Your task to perform on an android device: set default search engine in the chrome app Image 0: 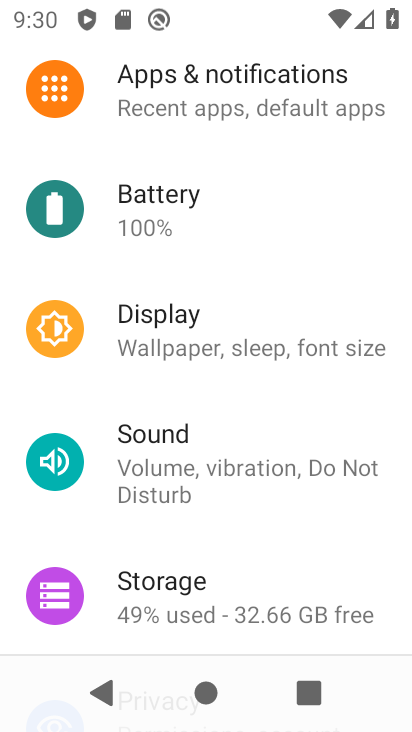
Step 0: press home button
Your task to perform on an android device: set default search engine in the chrome app Image 1: 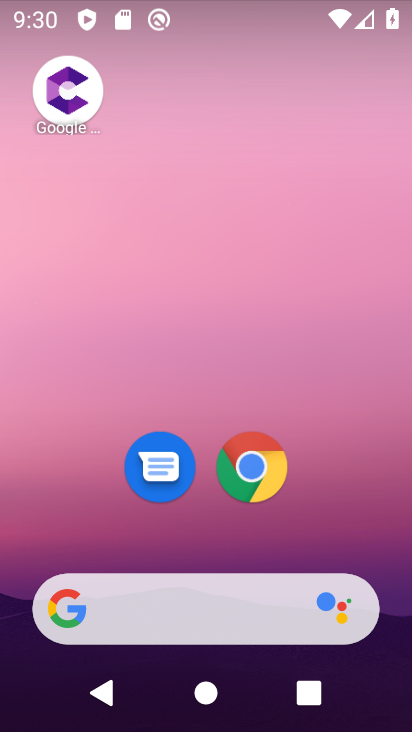
Step 1: click (254, 467)
Your task to perform on an android device: set default search engine in the chrome app Image 2: 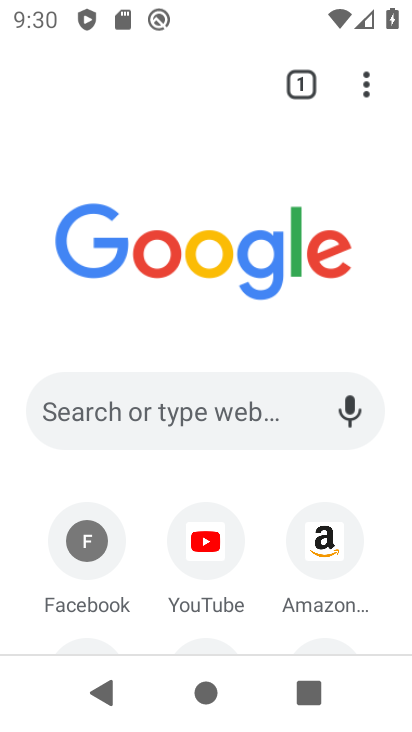
Step 2: click (362, 93)
Your task to perform on an android device: set default search engine in the chrome app Image 3: 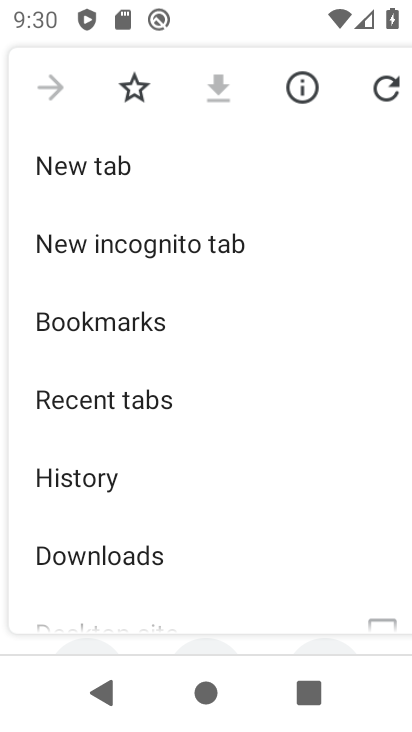
Step 3: drag from (215, 560) to (273, 189)
Your task to perform on an android device: set default search engine in the chrome app Image 4: 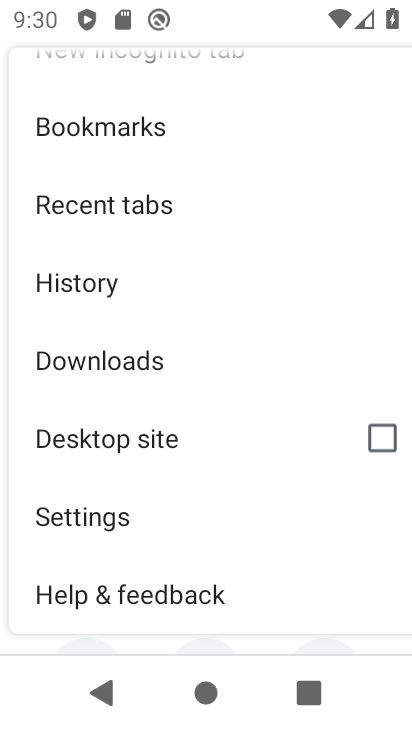
Step 4: click (78, 520)
Your task to perform on an android device: set default search engine in the chrome app Image 5: 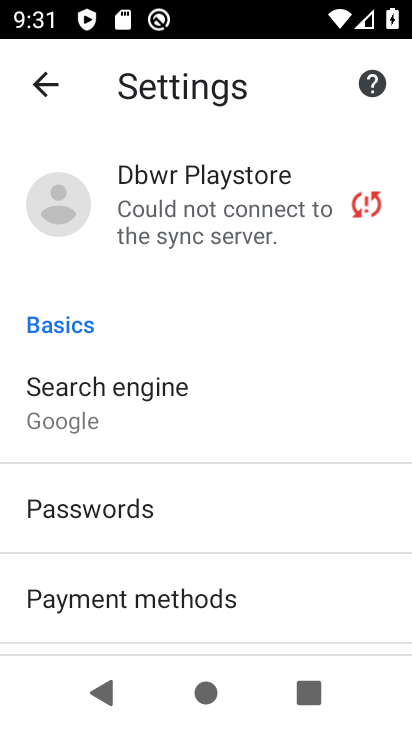
Step 5: click (68, 385)
Your task to perform on an android device: set default search engine in the chrome app Image 6: 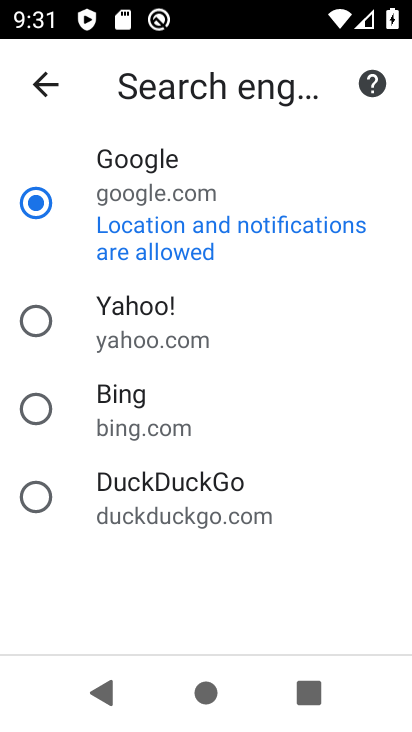
Step 6: click (38, 322)
Your task to perform on an android device: set default search engine in the chrome app Image 7: 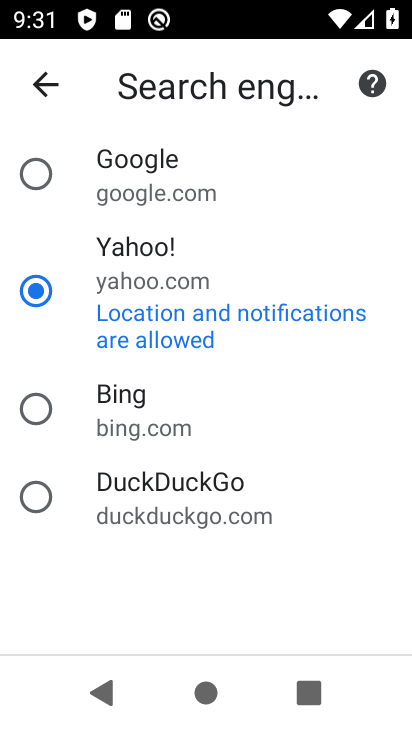
Step 7: task complete